Your task to perform on an android device: uninstall "Spotify" Image 0: 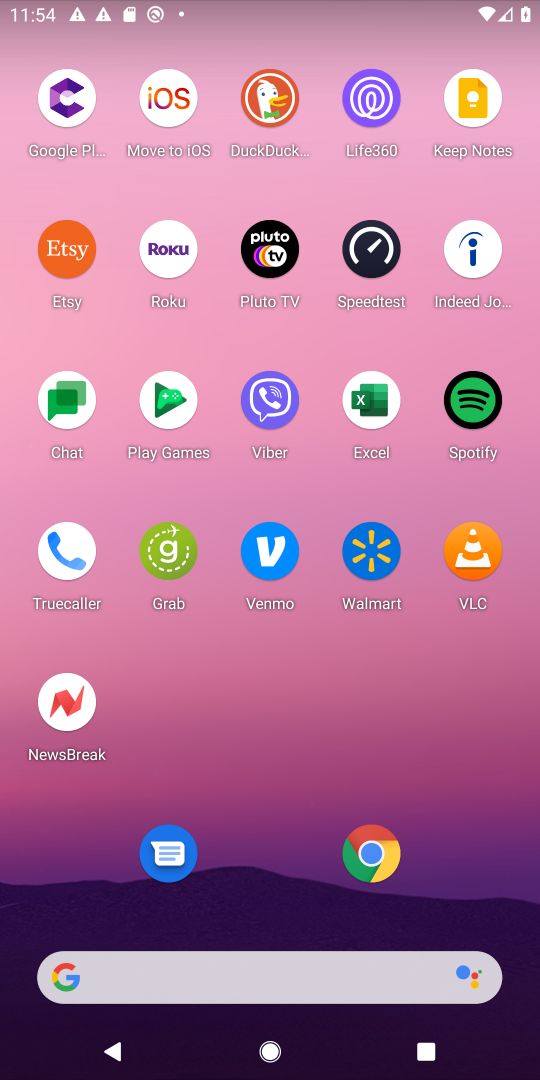
Step 0: drag from (309, 978) to (239, 52)
Your task to perform on an android device: uninstall "Spotify" Image 1: 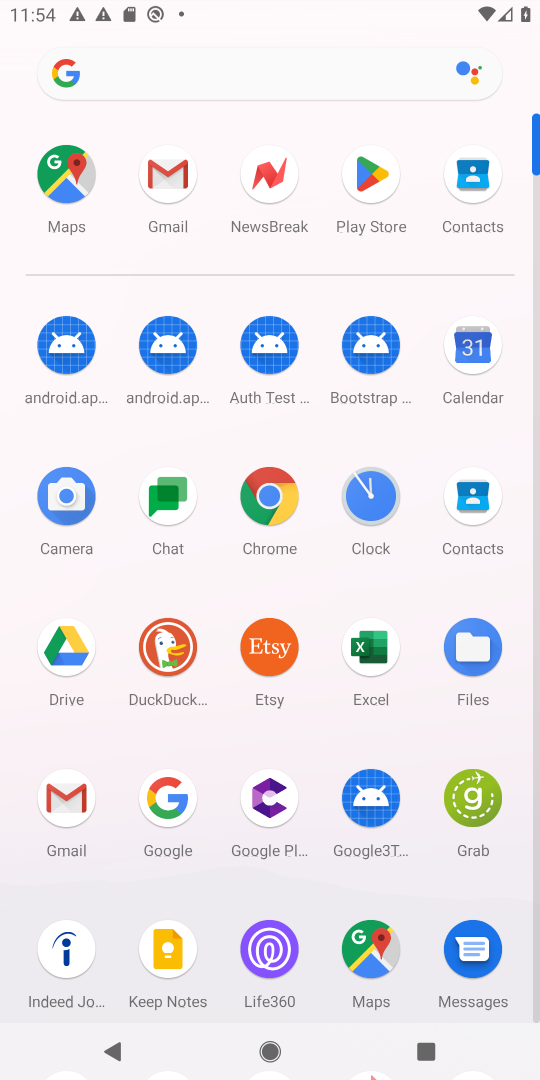
Step 1: drag from (315, 891) to (279, 350)
Your task to perform on an android device: uninstall "Spotify" Image 2: 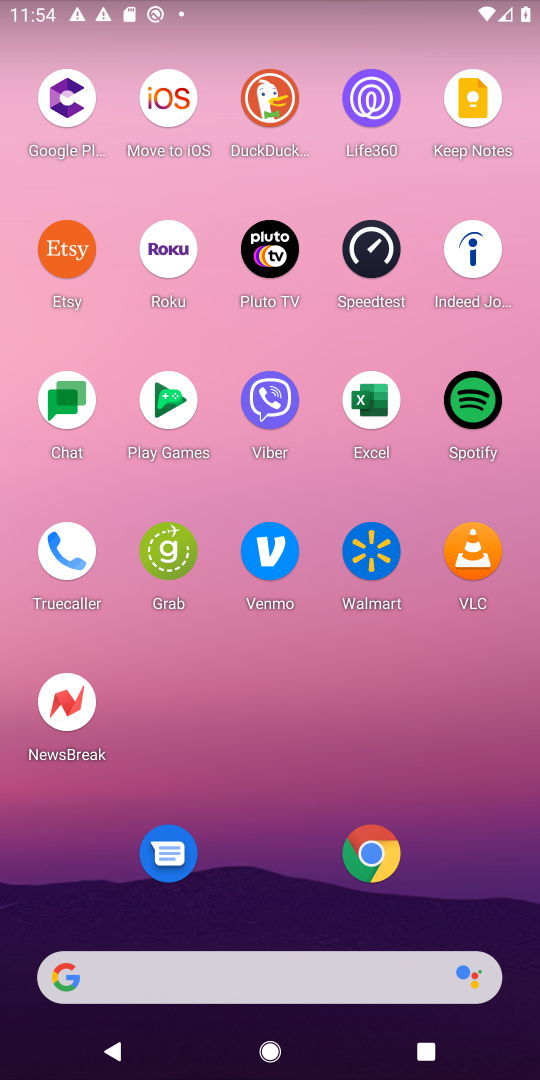
Step 2: drag from (212, 977) to (197, 91)
Your task to perform on an android device: uninstall "Spotify" Image 3: 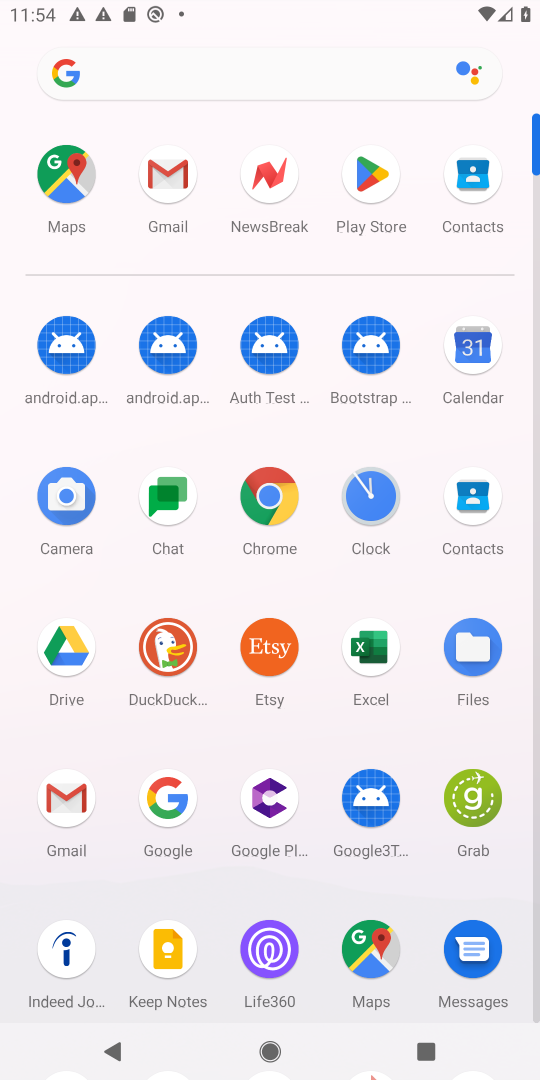
Step 3: click (376, 173)
Your task to perform on an android device: uninstall "Spotify" Image 4: 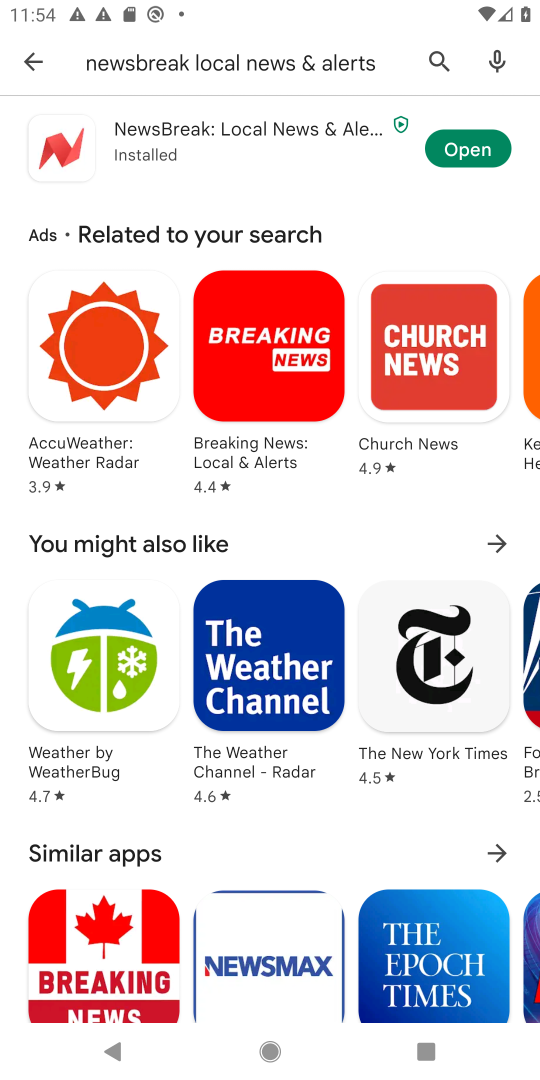
Step 4: click (437, 59)
Your task to perform on an android device: uninstall "Spotify" Image 5: 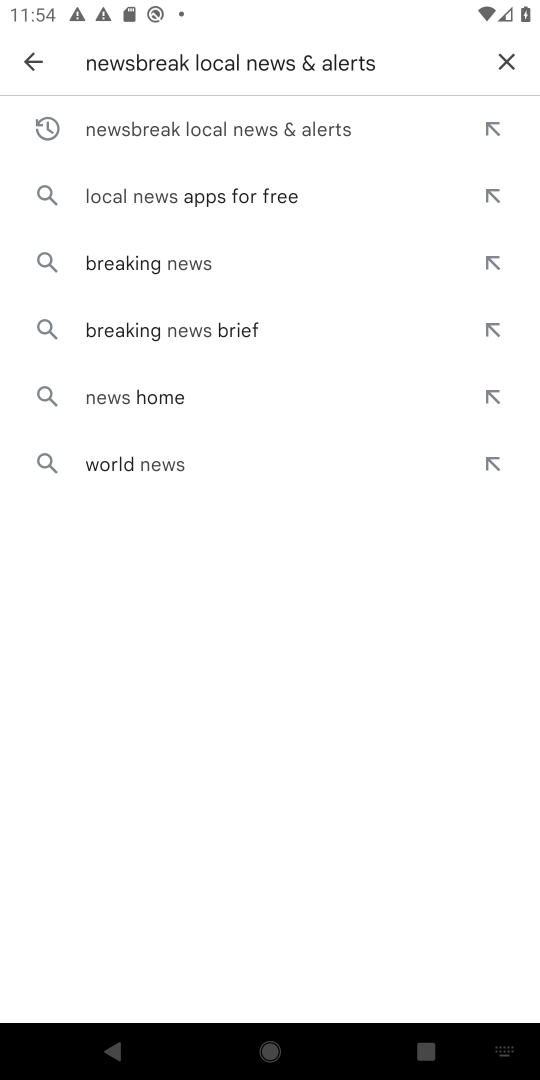
Step 5: click (505, 56)
Your task to perform on an android device: uninstall "Spotify" Image 6: 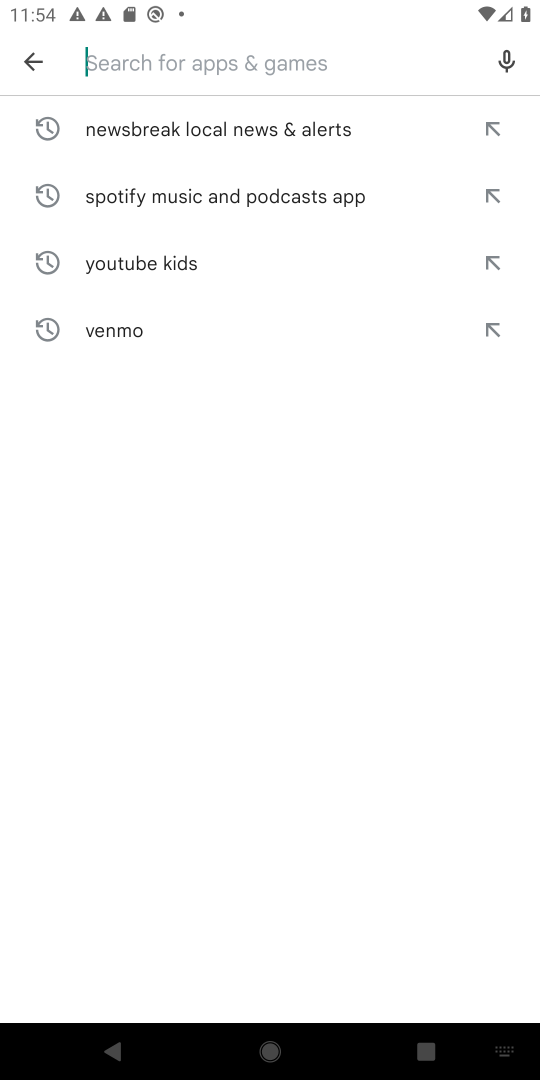
Step 6: type "Spotify"
Your task to perform on an android device: uninstall "Spotify" Image 7: 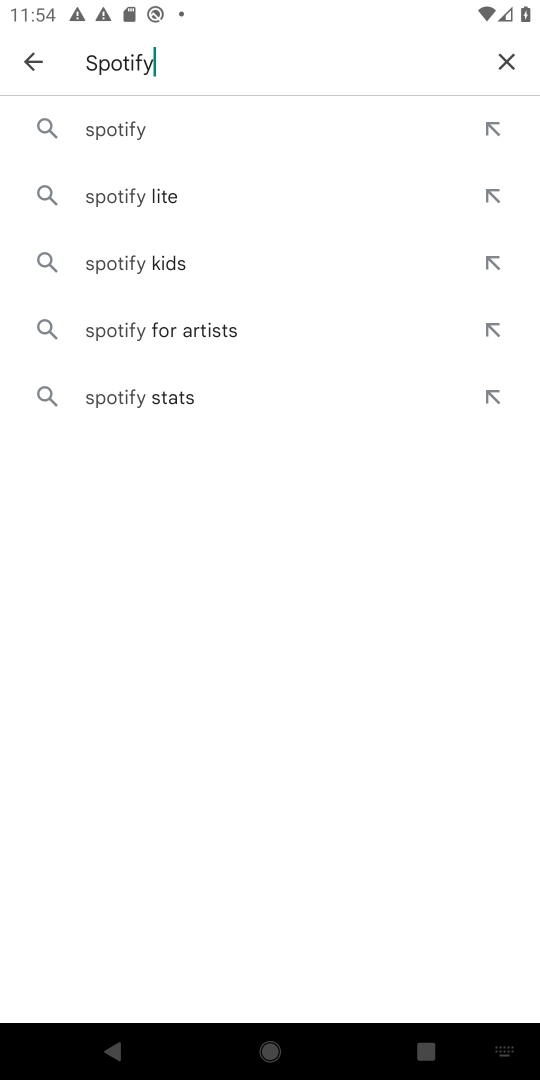
Step 7: click (97, 128)
Your task to perform on an android device: uninstall "Spotify" Image 8: 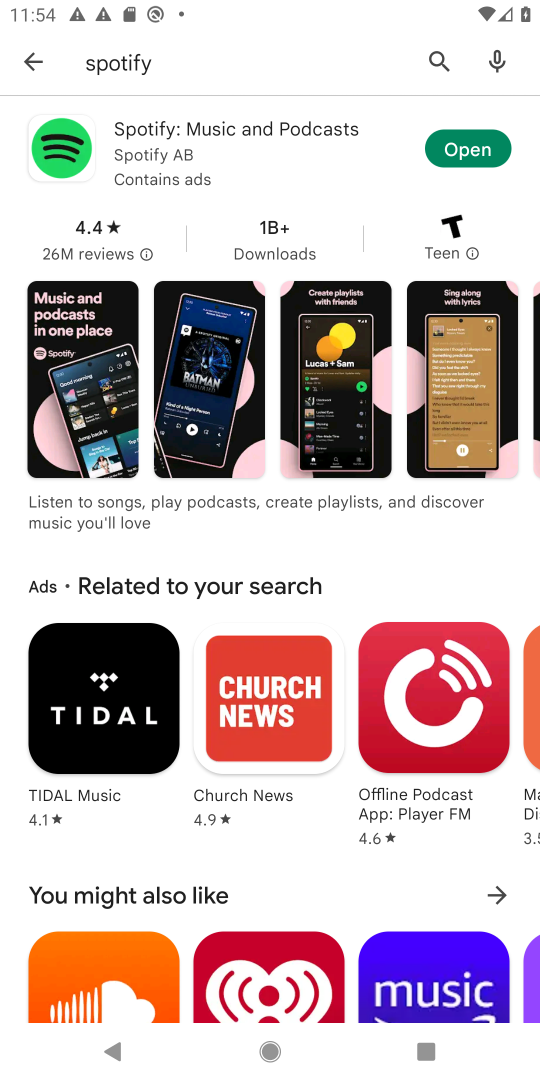
Step 8: click (156, 170)
Your task to perform on an android device: uninstall "Spotify" Image 9: 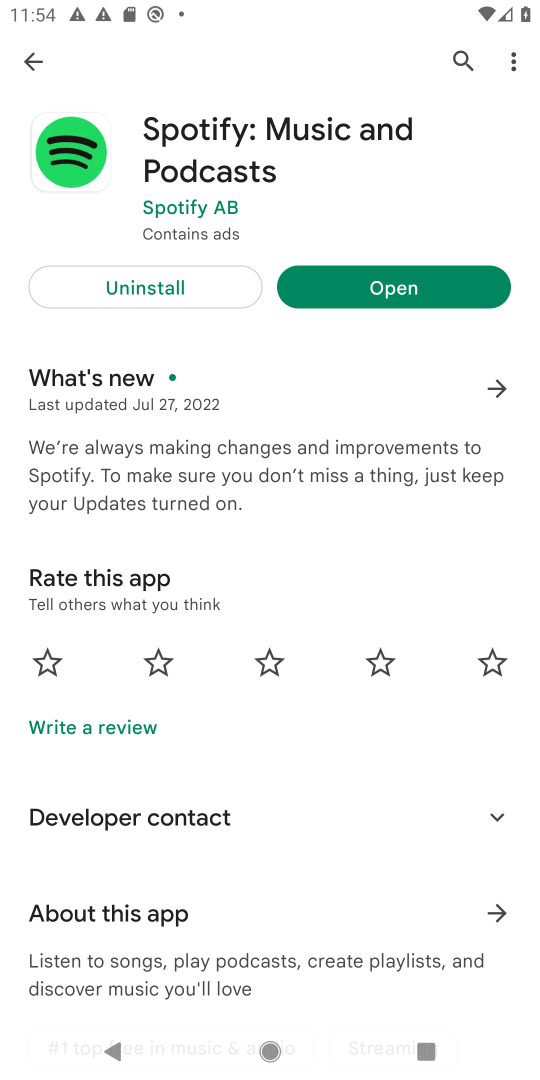
Step 9: click (148, 285)
Your task to perform on an android device: uninstall "Spotify" Image 10: 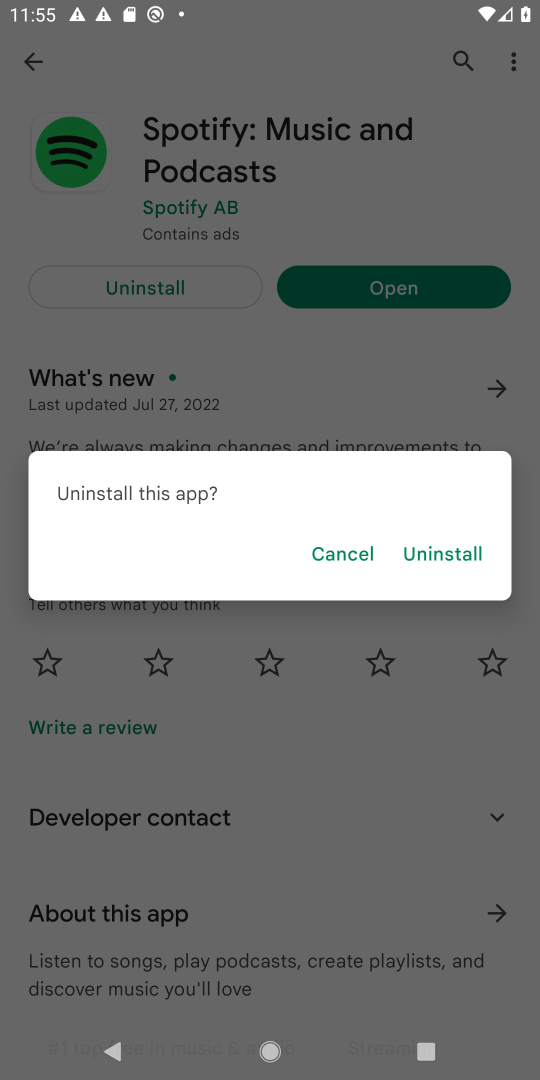
Step 10: click (427, 556)
Your task to perform on an android device: uninstall "Spotify" Image 11: 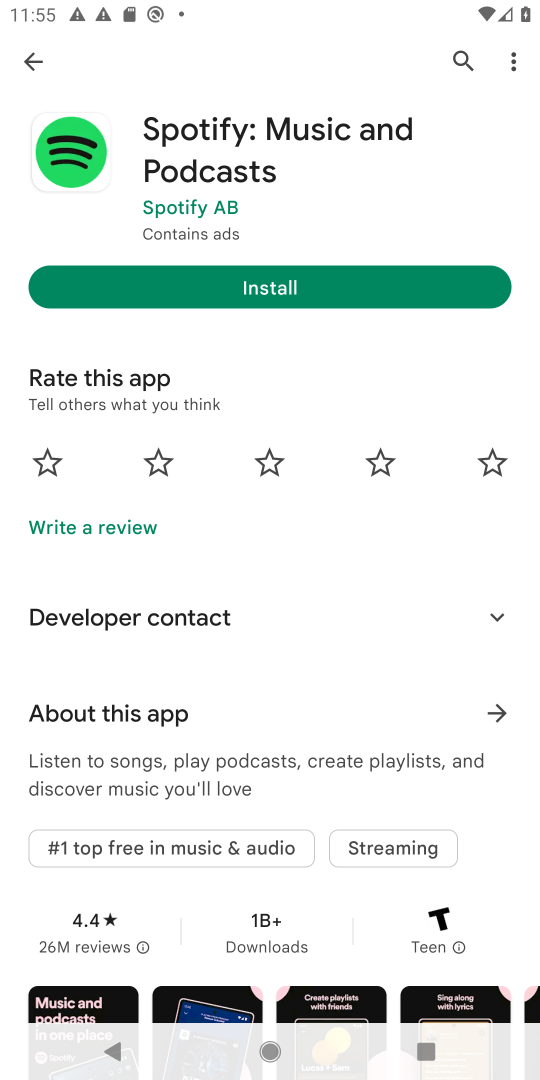
Step 11: task complete